Your task to perform on an android device: Go to sound settings Image 0: 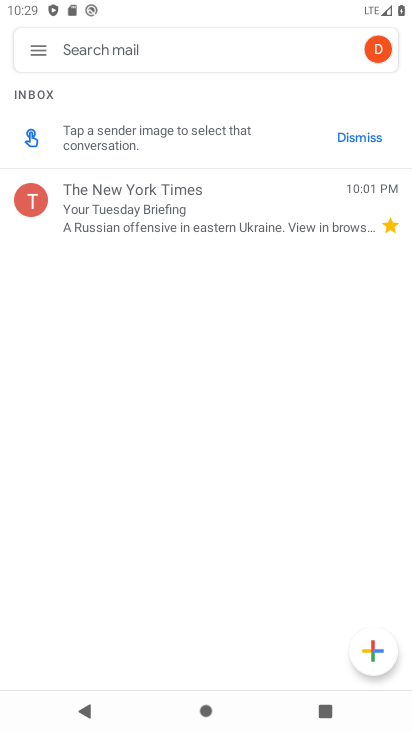
Step 0: press home button
Your task to perform on an android device: Go to sound settings Image 1: 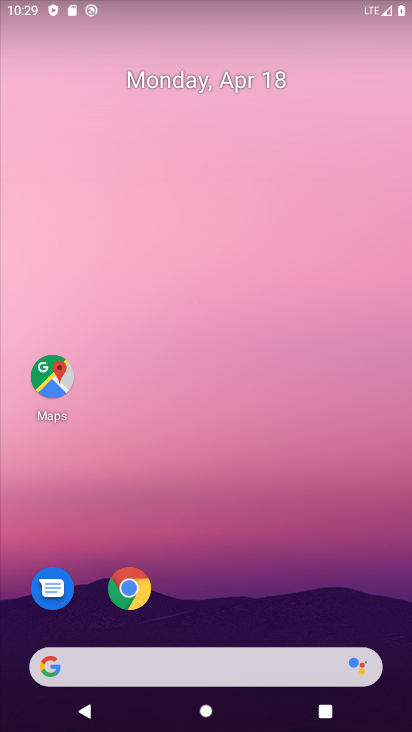
Step 1: drag from (342, 599) to (310, 27)
Your task to perform on an android device: Go to sound settings Image 2: 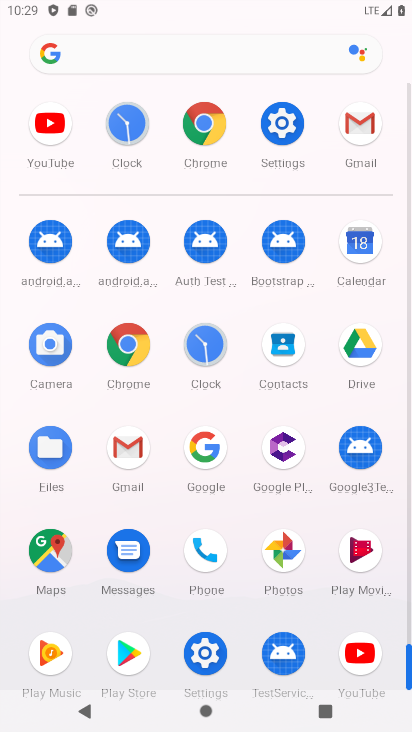
Step 2: click (206, 656)
Your task to perform on an android device: Go to sound settings Image 3: 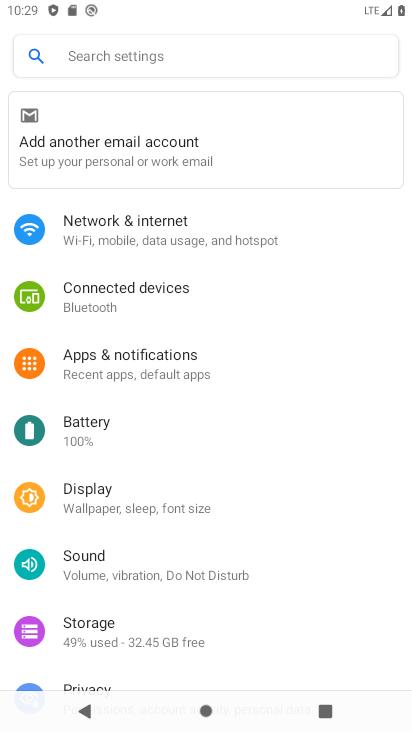
Step 3: click (82, 565)
Your task to perform on an android device: Go to sound settings Image 4: 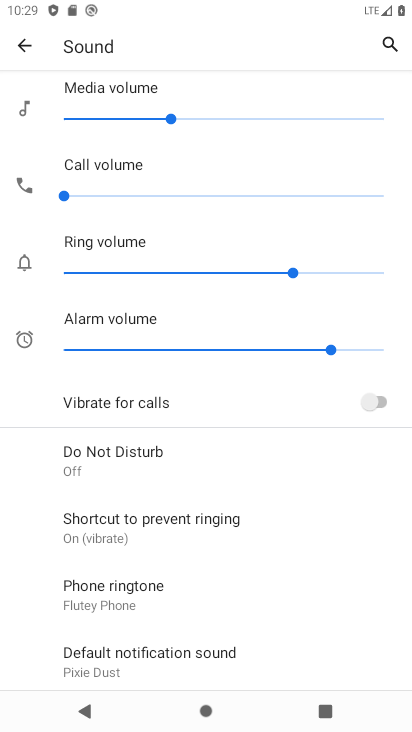
Step 4: drag from (272, 581) to (260, 349)
Your task to perform on an android device: Go to sound settings Image 5: 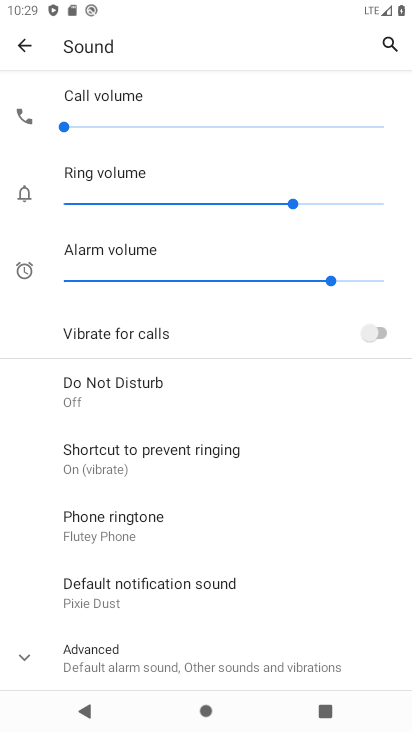
Step 5: drag from (287, 539) to (259, 314)
Your task to perform on an android device: Go to sound settings Image 6: 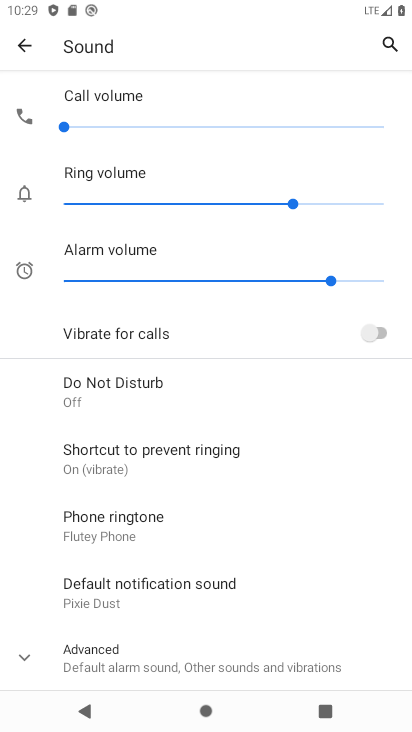
Step 6: drag from (260, 542) to (256, 255)
Your task to perform on an android device: Go to sound settings Image 7: 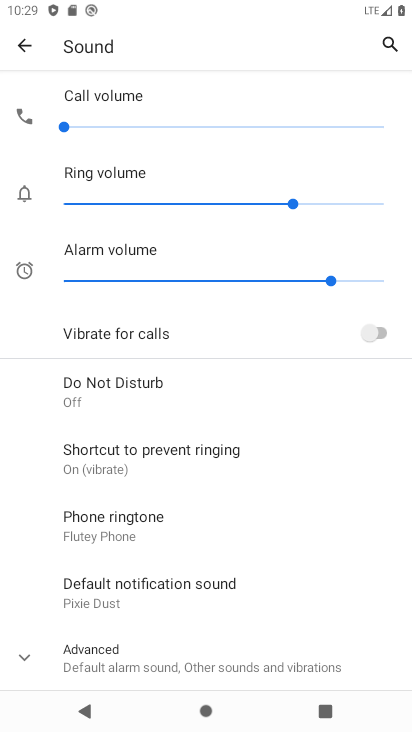
Step 7: click (35, 653)
Your task to perform on an android device: Go to sound settings Image 8: 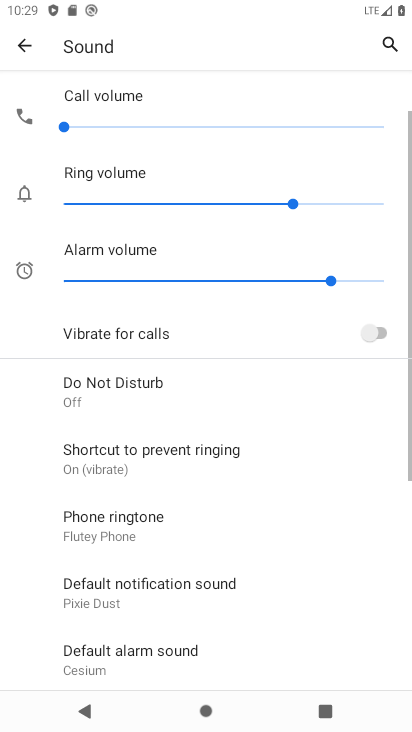
Step 8: task complete